Your task to perform on an android device: Open Yahoo.com Image 0: 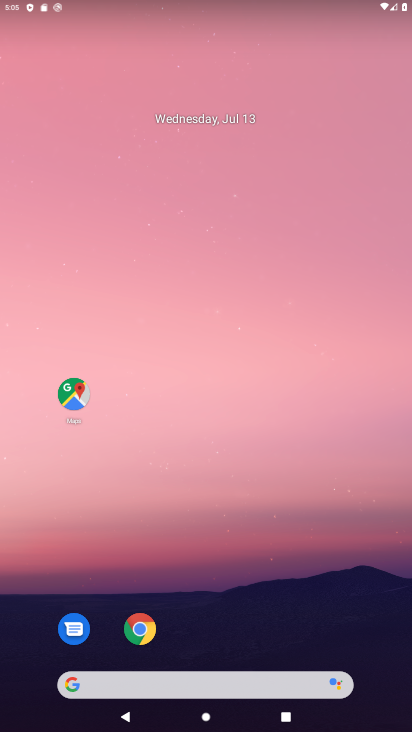
Step 0: drag from (228, 518) to (163, 175)
Your task to perform on an android device: Open Yahoo.com Image 1: 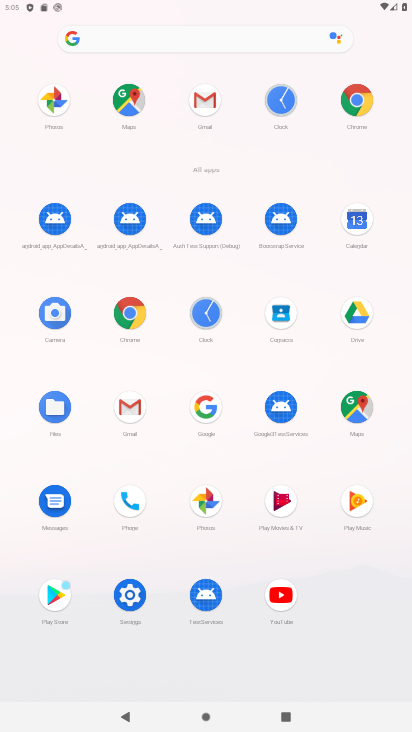
Step 1: click (128, 302)
Your task to perform on an android device: Open Yahoo.com Image 2: 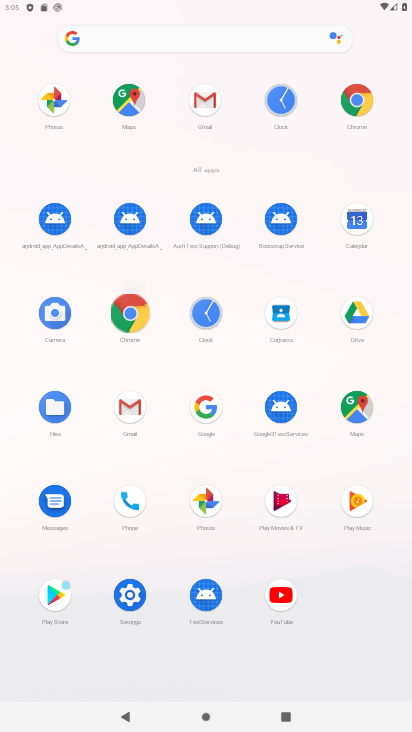
Step 2: click (128, 302)
Your task to perform on an android device: Open Yahoo.com Image 3: 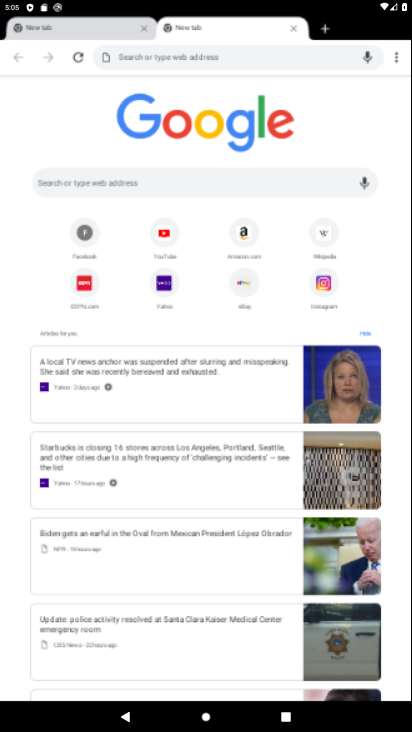
Step 3: click (128, 302)
Your task to perform on an android device: Open Yahoo.com Image 4: 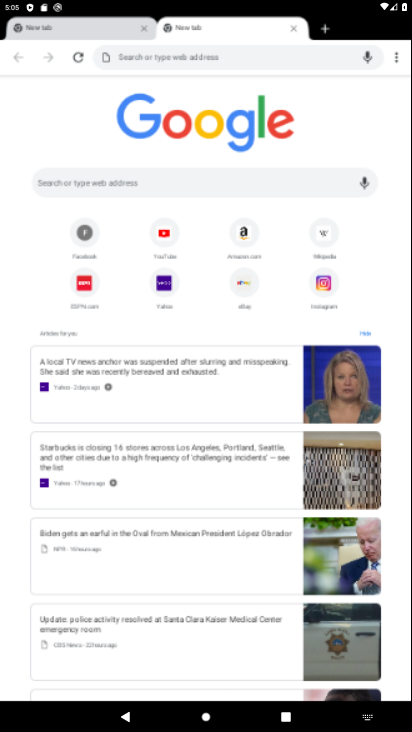
Step 4: click (130, 304)
Your task to perform on an android device: Open Yahoo.com Image 5: 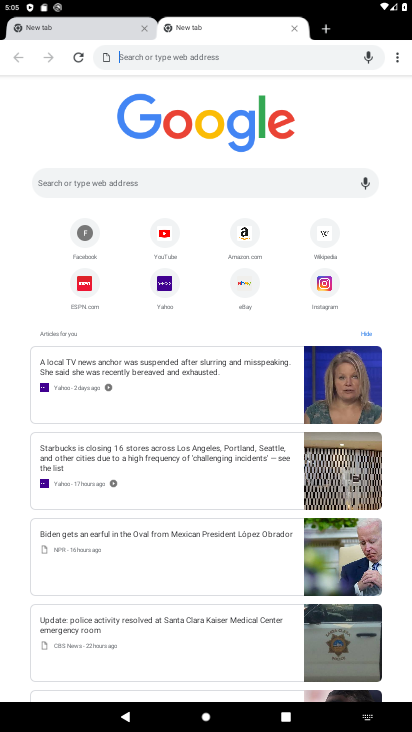
Step 5: click (162, 289)
Your task to perform on an android device: Open Yahoo.com Image 6: 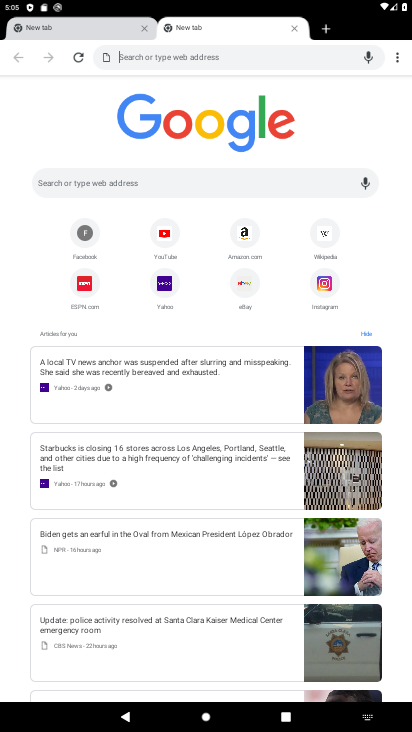
Step 6: click (161, 286)
Your task to perform on an android device: Open Yahoo.com Image 7: 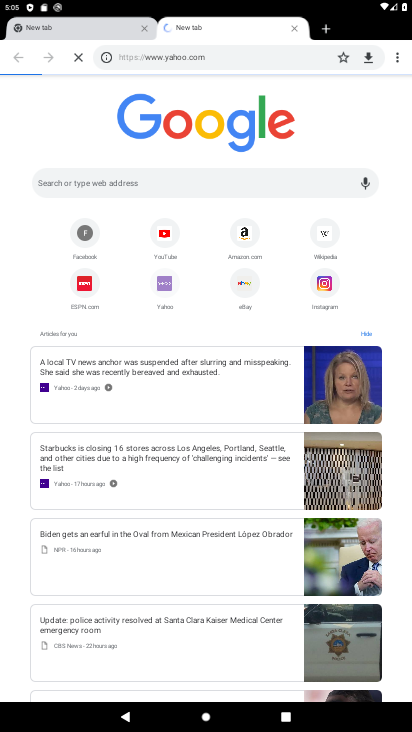
Step 7: click (176, 272)
Your task to perform on an android device: Open Yahoo.com Image 8: 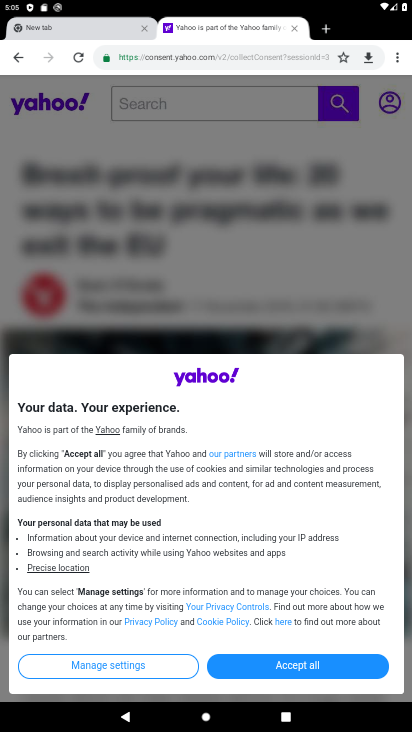
Step 8: task complete